Your task to perform on an android device: Open Google Chrome and click the shortcut for Amazon.com Image 0: 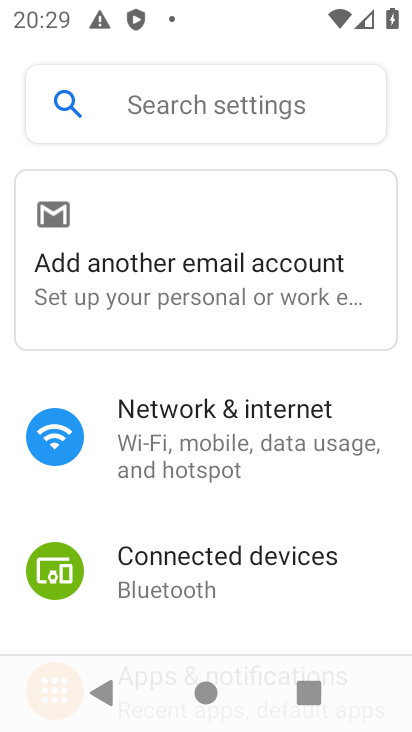
Step 0: press home button
Your task to perform on an android device: Open Google Chrome and click the shortcut for Amazon.com Image 1: 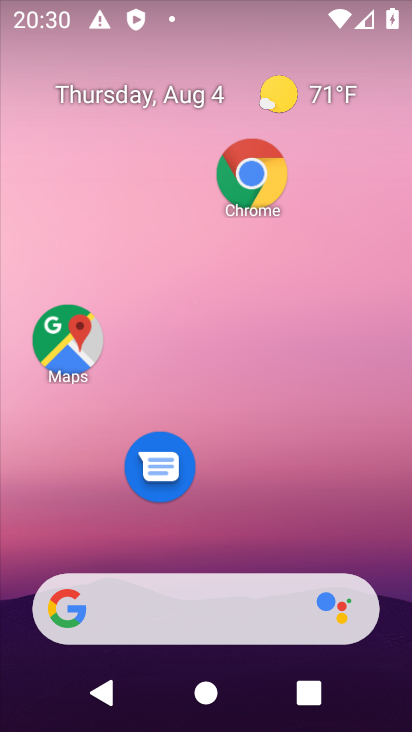
Step 1: drag from (243, 543) to (321, 41)
Your task to perform on an android device: Open Google Chrome and click the shortcut for Amazon.com Image 2: 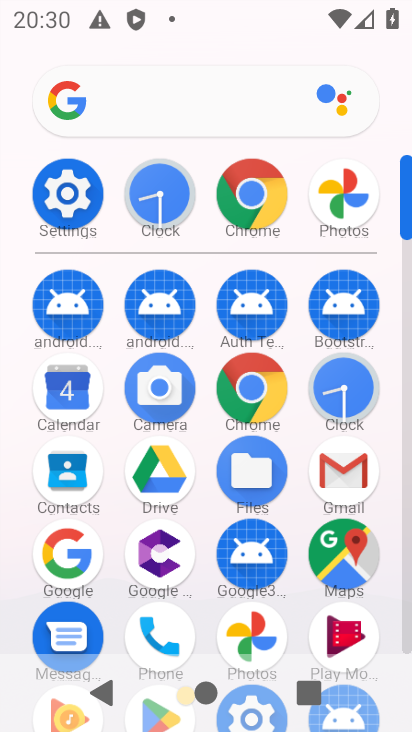
Step 2: click (256, 383)
Your task to perform on an android device: Open Google Chrome and click the shortcut for Amazon.com Image 3: 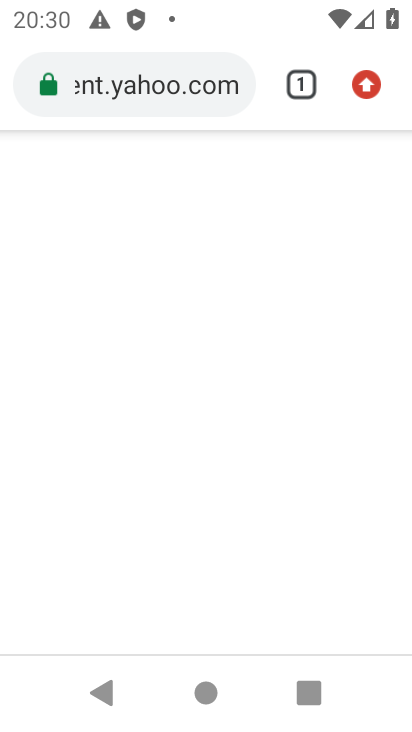
Step 3: drag from (360, 78) to (124, 292)
Your task to perform on an android device: Open Google Chrome and click the shortcut for Amazon.com Image 4: 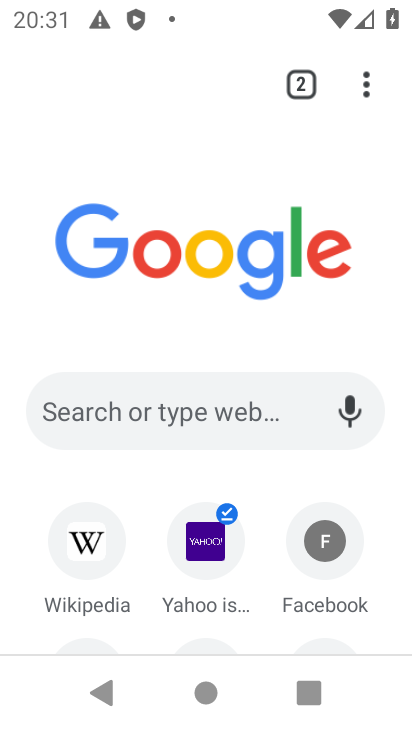
Step 4: drag from (327, 583) to (340, 113)
Your task to perform on an android device: Open Google Chrome and click the shortcut for Amazon.com Image 5: 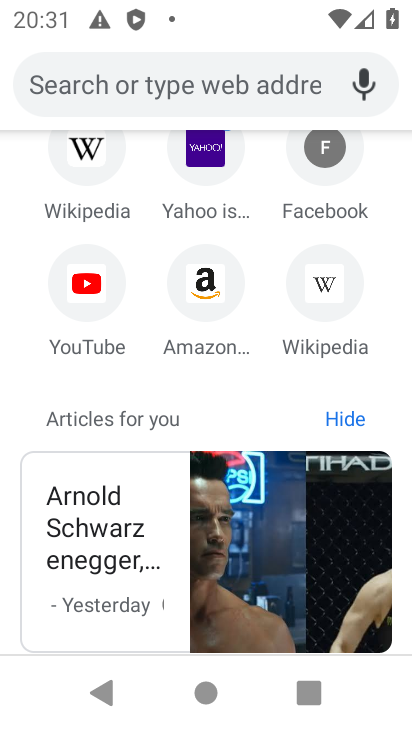
Step 5: click (209, 278)
Your task to perform on an android device: Open Google Chrome and click the shortcut for Amazon.com Image 6: 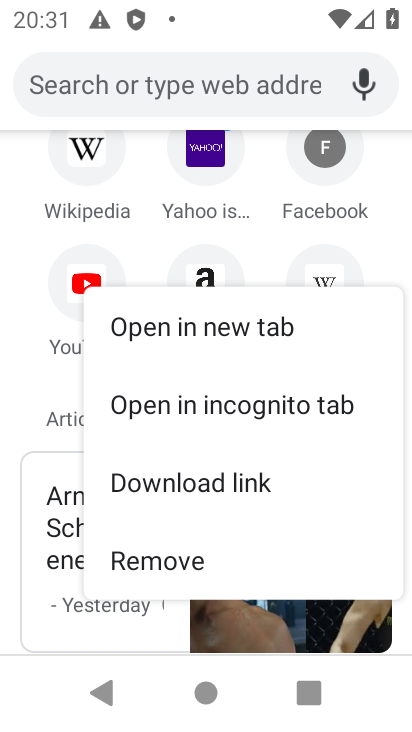
Step 6: click (220, 267)
Your task to perform on an android device: Open Google Chrome and click the shortcut for Amazon.com Image 7: 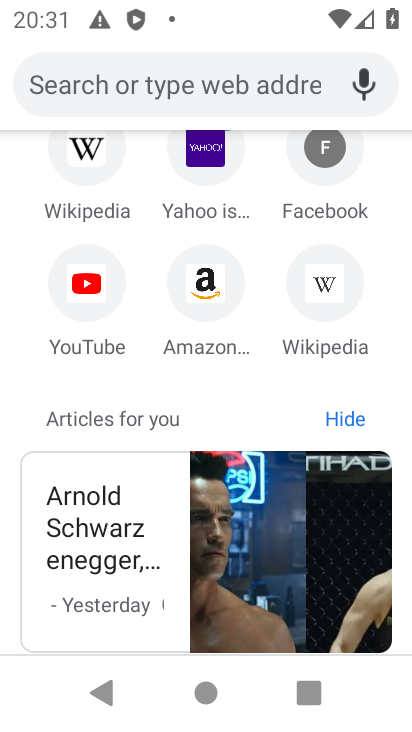
Step 7: click (214, 283)
Your task to perform on an android device: Open Google Chrome and click the shortcut for Amazon.com Image 8: 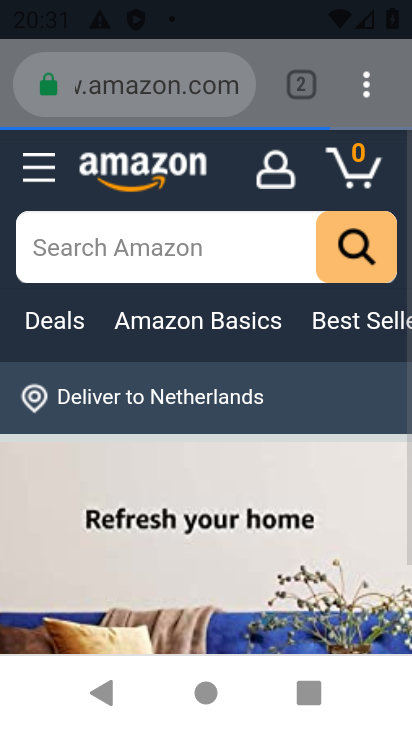
Step 8: task complete